Your task to perform on an android device: Open Google Maps Image 0: 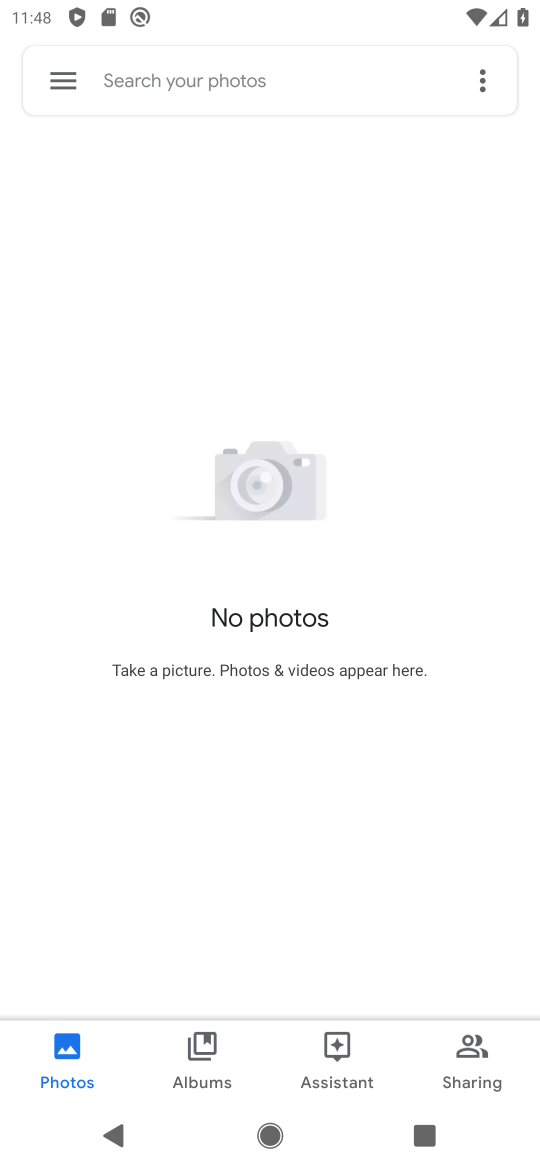
Step 0: press home button
Your task to perform on an android device: Open Google Maps Image 1: 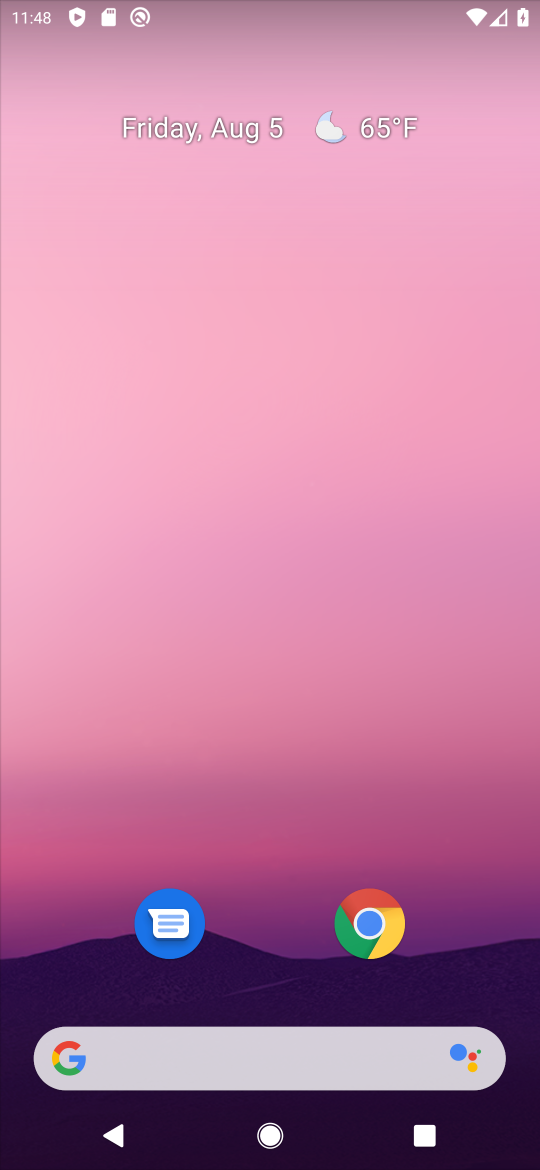
Step 1: drag from (478, 936) to (309, 30)
Your task to perform on an android device: Open Google Maps Image 2: 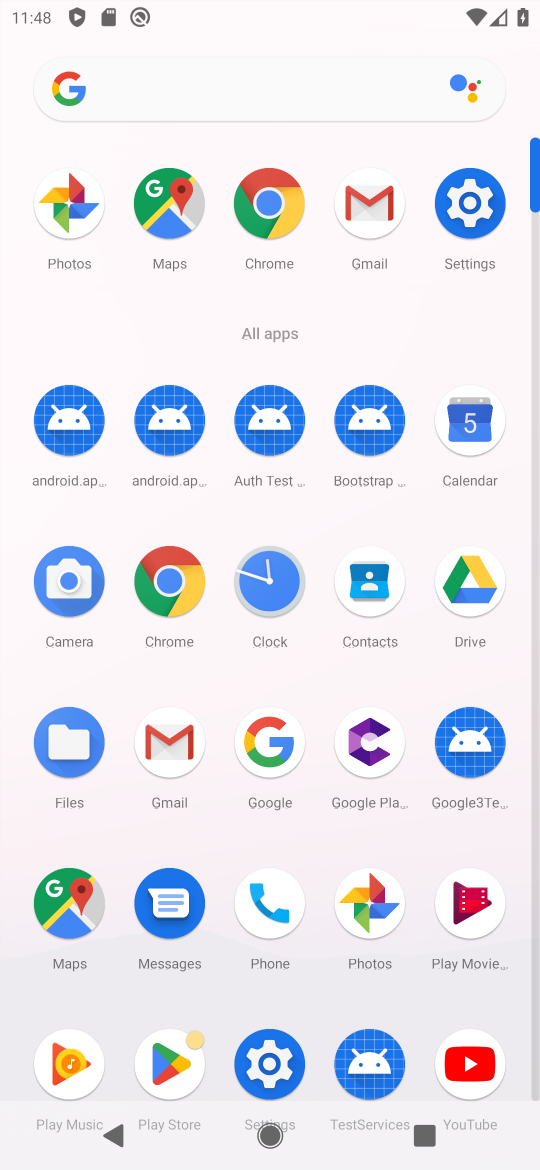
Step 2: click (171, 184)
Your task to perform on an android device: Open Google Maps Image 3: 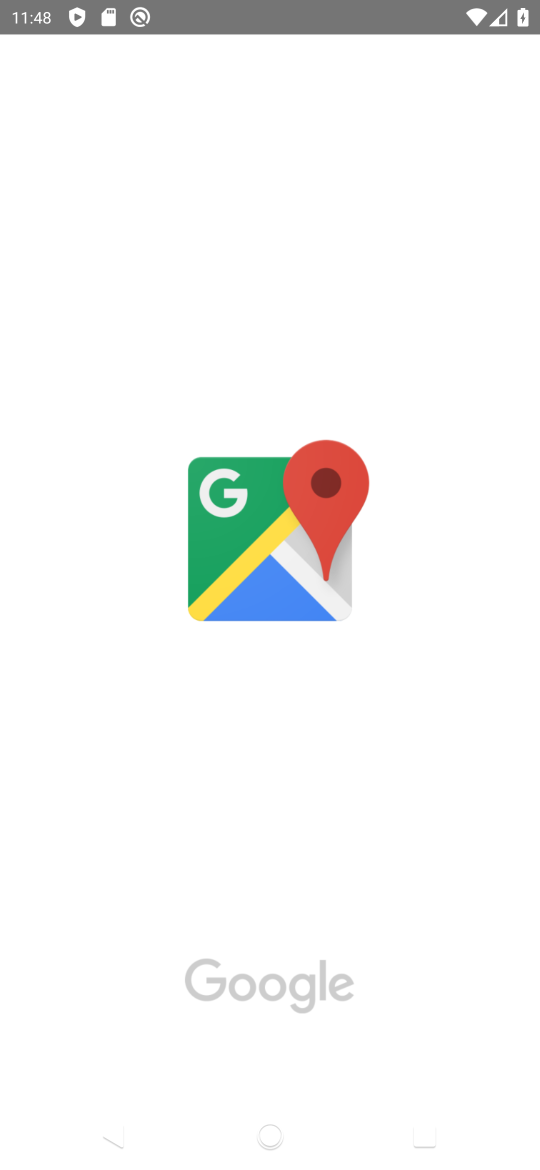
Step 3: task complete